Your task to perform on an android device: Go to CNN.com Image 0: 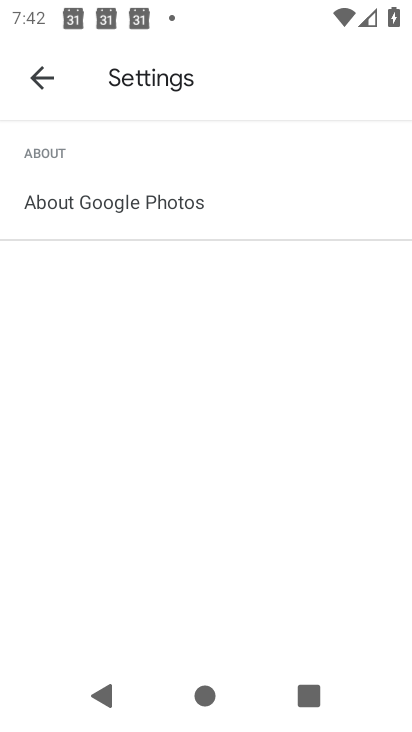
Step 0: drag from (259, 665) to (404, 222)
Your task to perform on an android device: Go to CNN.com Image 1: 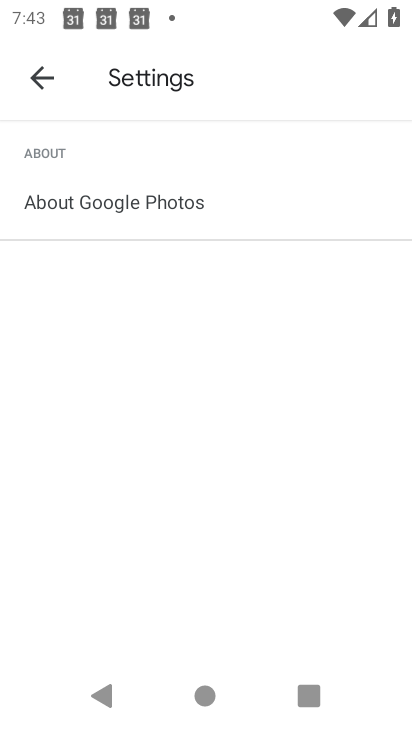
Step 1: press home button
Your task to perform on an android device: Go to CNN.com Image 2: 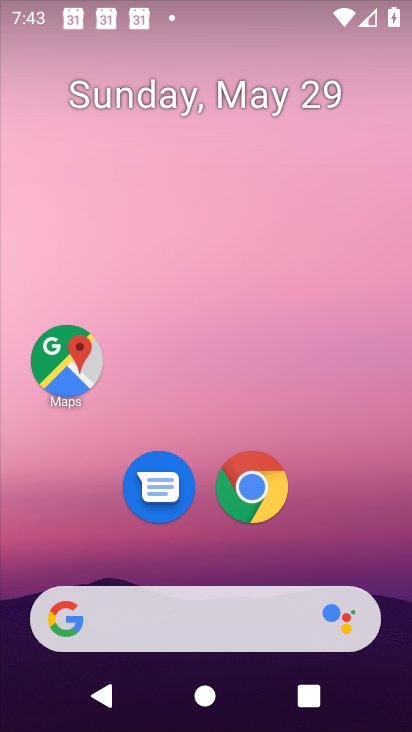
Step 2: click (238, 501)
Your task to perform on an android device: Go to CNN.com Image 3: 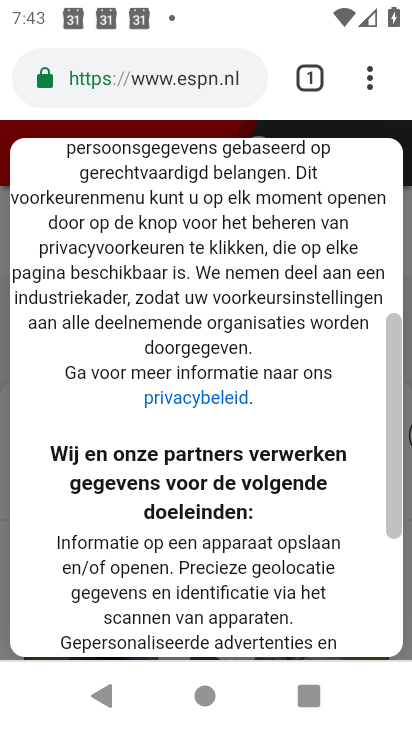
Step 3: click (232, 64)
Your task to perform on an android device: Go to CNN.com Image 4: 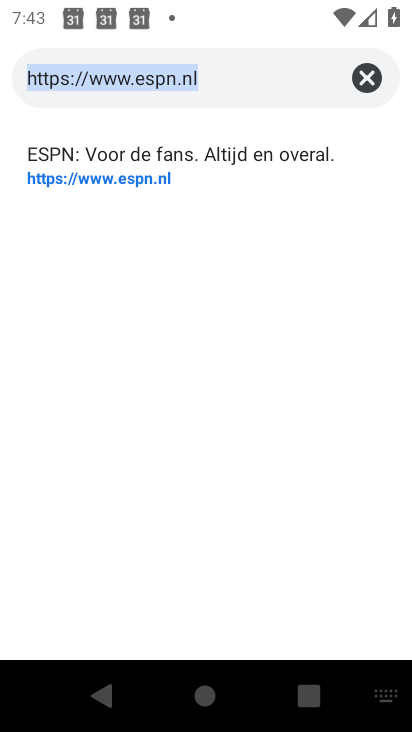
Step 4: type "cnn"
Your task to perform on an android device: Go to CNN.com Image 5: 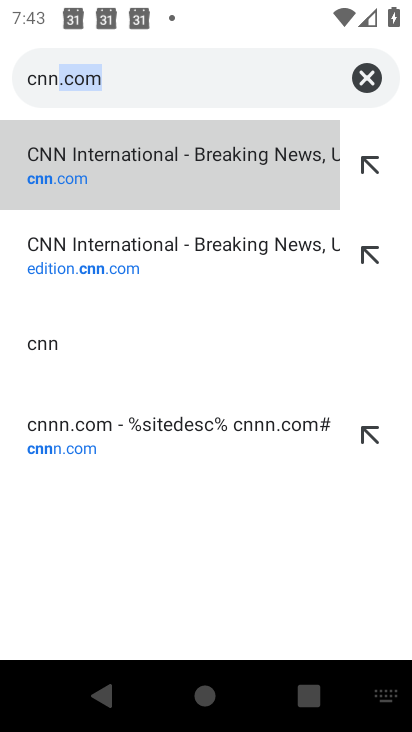
Step 5: click (274, 172)
Your task to perform on an android device: Go to CNN.com Image 6: 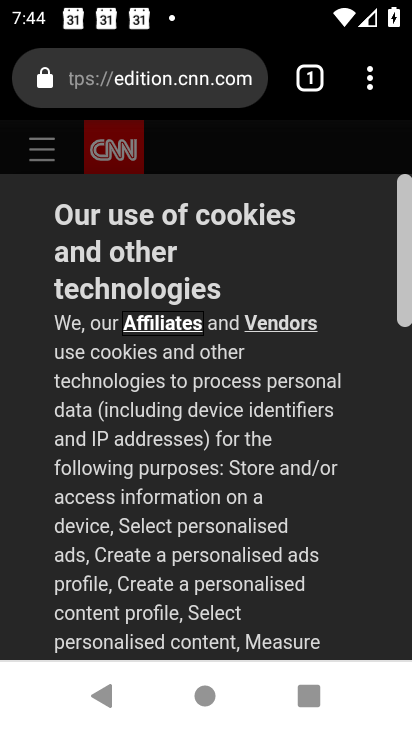
Step 6: task complete